Your task to perform on an android device: Go to Maps Image 0: 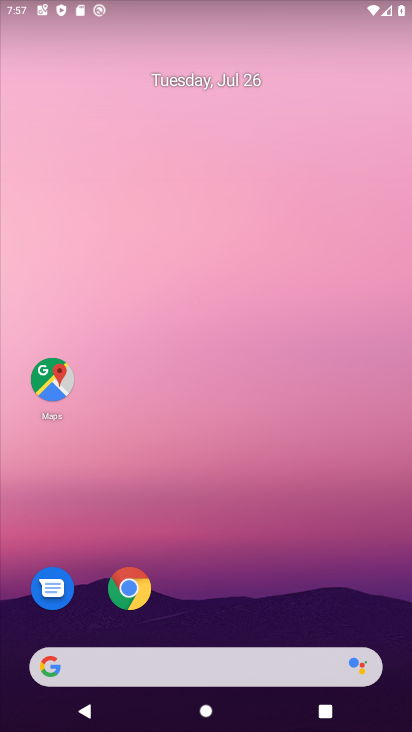
Step 0: drag from (214, 430) to (220, 190)
Your task to perform on an android device: Go to Maps Image 1: 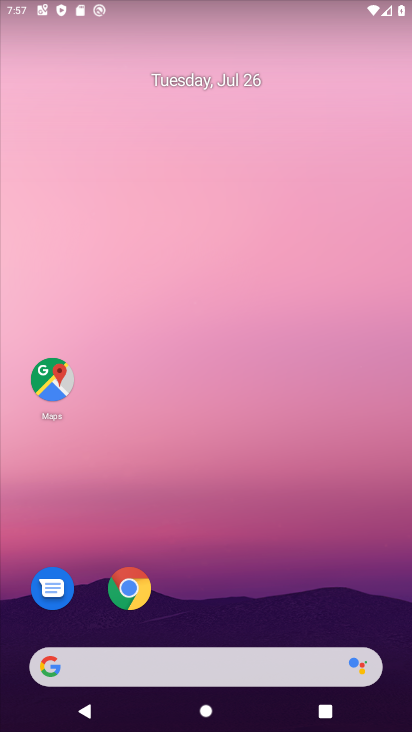
Step 1: click (53, 378)
Your task to perform on an android device: Go to Maps Image 2: 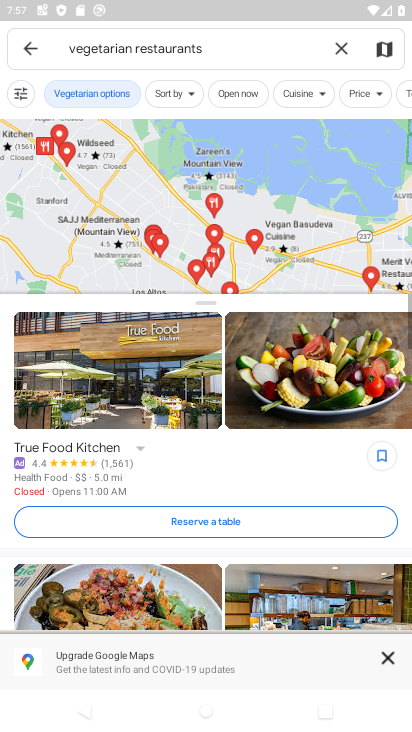
Step 2: task complete